Your task to perform on an android device: toggle notifications settings in the gmail app Image 0: 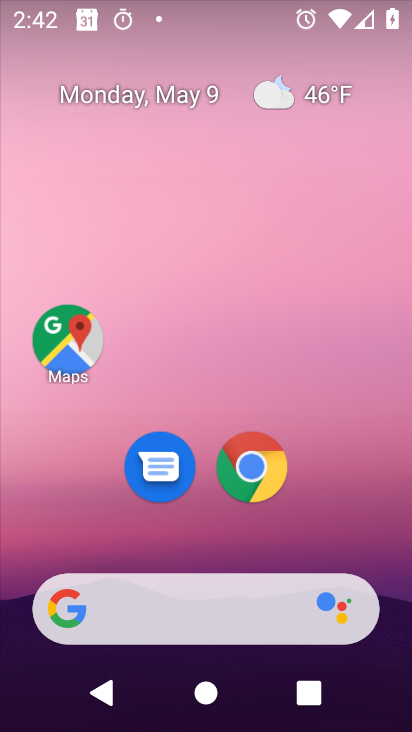
Step 0: drag from (308, 522) to (264, 4)
Your task to perform on an android device: toggle notifications settings in the gmail app Image 1: 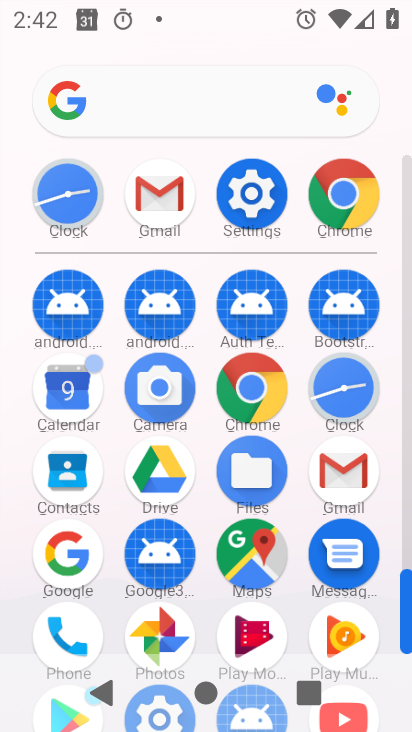
Step 1: click (344, 487)
Your task to perform on an android device: toggle notifications settings in the gmail app Image 2: 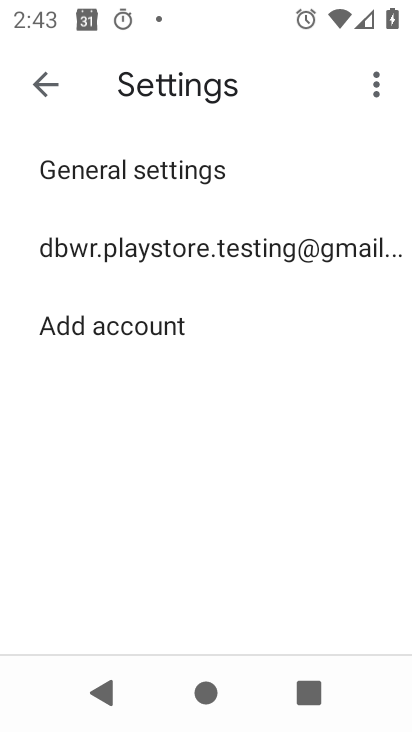
Step 2: click (224, 238)
Your task to perform on an android device: toggle notifications settings in the gmail app Image 3: 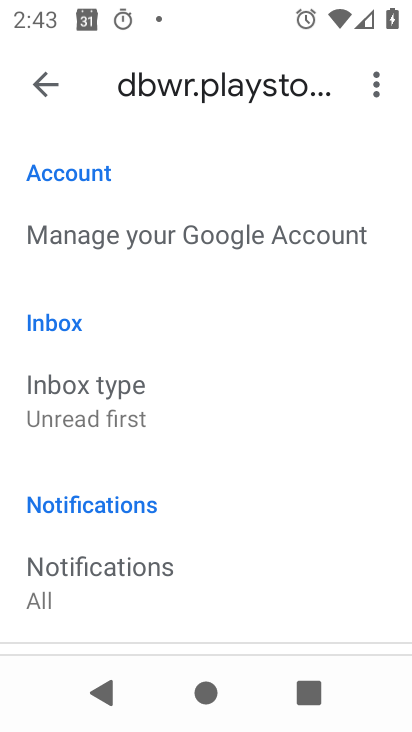
Step 3: drag from (99, 587) to (164, 148)
Your task to perform on an android device: toggle notifications settings in the gmail app Image 4: 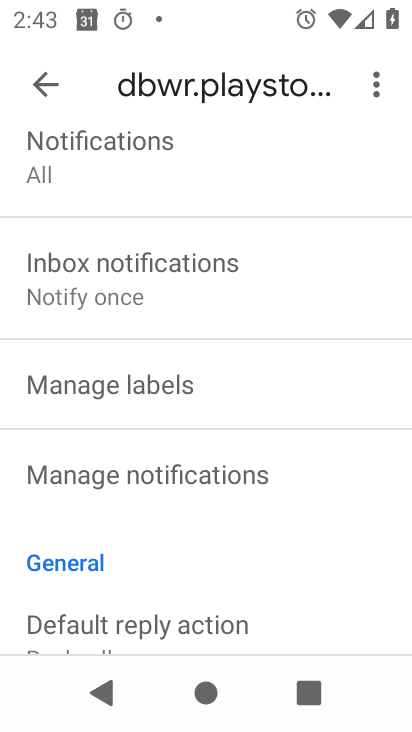
Step 4: click (127, 472)
Your task to perform on an android device: toggle notifications settings in the gmail app Image 5: 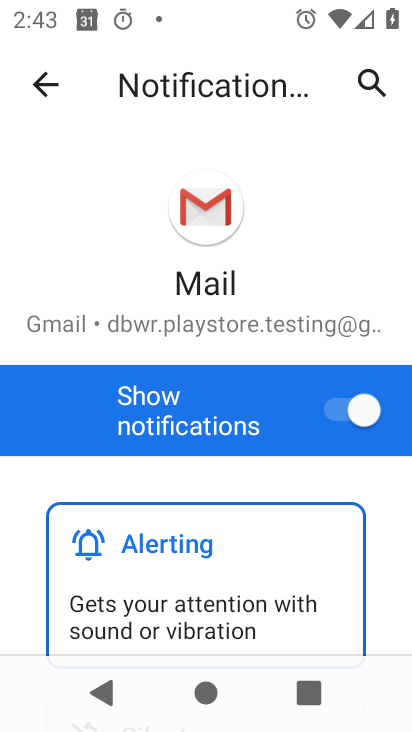
Step 5: drag from (226, 621) to (231, 297)
Your task to perform on an android device: toggle notifications settings in the gmail app Image 6: 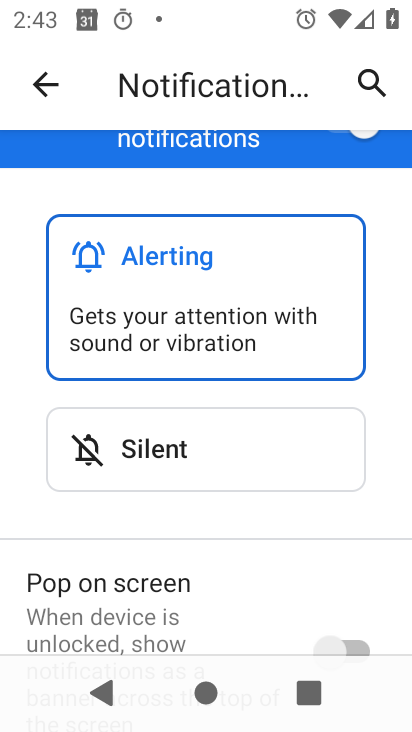
Step 6: drag from (336, 196) to (329, 442)
Your task to perform on an android device: toggle notifications settings in the gmail app Image 7: 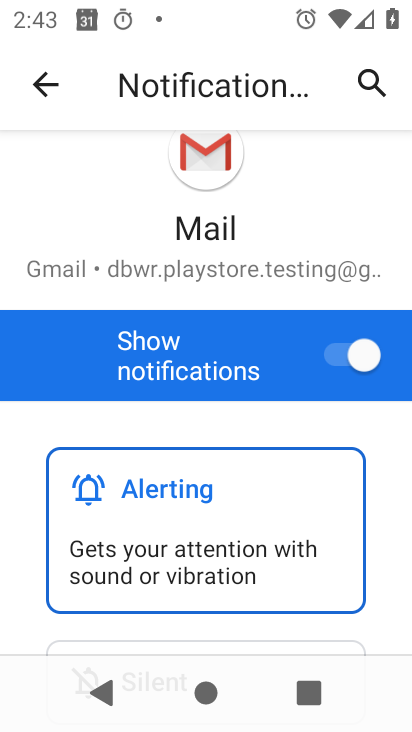
Step 7: click (350, 357)
Your task to perform on an android device: toggle notifications settings in the gmail app Image 8: 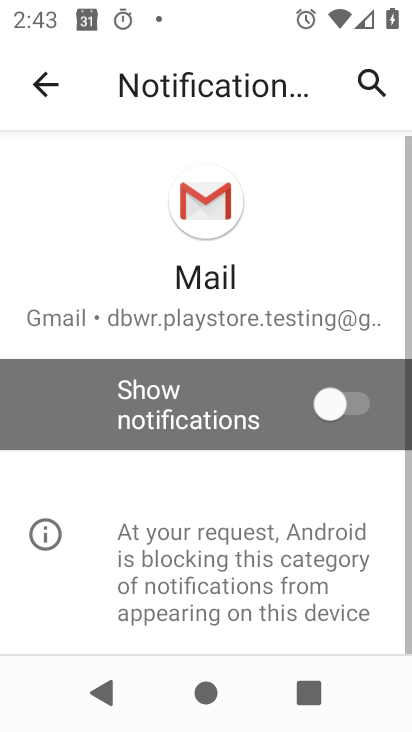
Step 8: task complete